Your task to perform on an android device: uninstall "Google Play Music" Image 0: 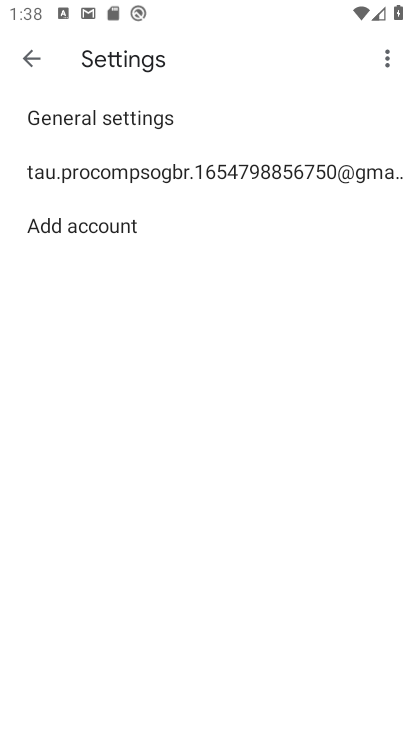
Step 0: press home button
Your task to perform on an android device: uninstall "Google Play Music" Image 1: 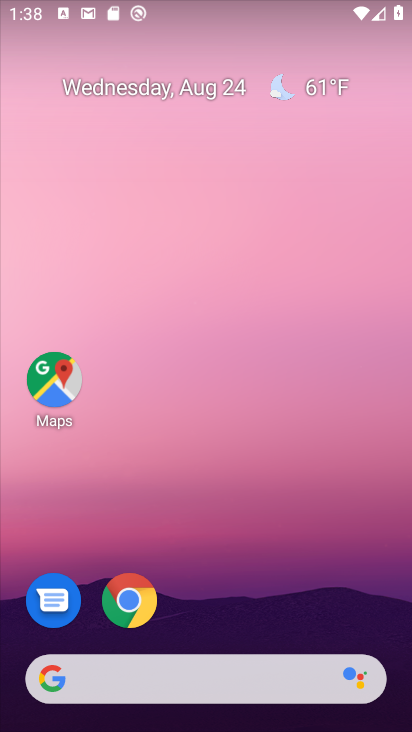
Step 1: drag from (255, 620) to (232, 0)
Your task to perform on an android device: uninstall "Google Play Music" Image 2: 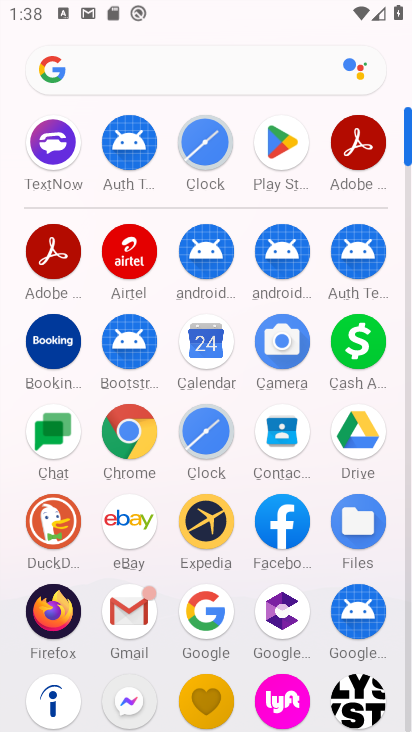
Step 2: click (280, 140)
Your task to perform on an android device: uninstall "Google Play Music" Image 3: 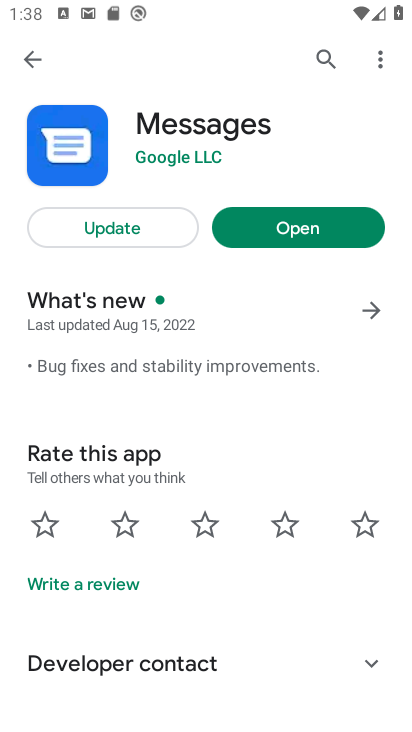
Step 3: click (338, 80)
Your task to perform on an android device: uninstall "Google Play Music" Image 4: 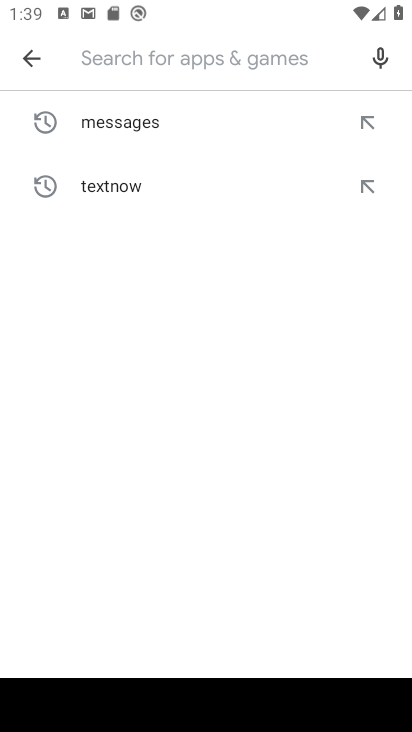
Step 4: type "google play"
Your task to perform on an android device: uninstall "Google Play Music" Image 5: 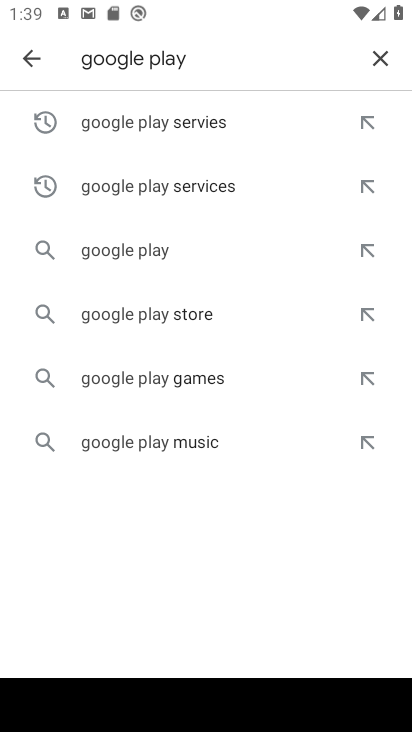
Step 5: click (165, 107)
Your task to perform on an android device: uninstall "Google Play Music" Image 6: 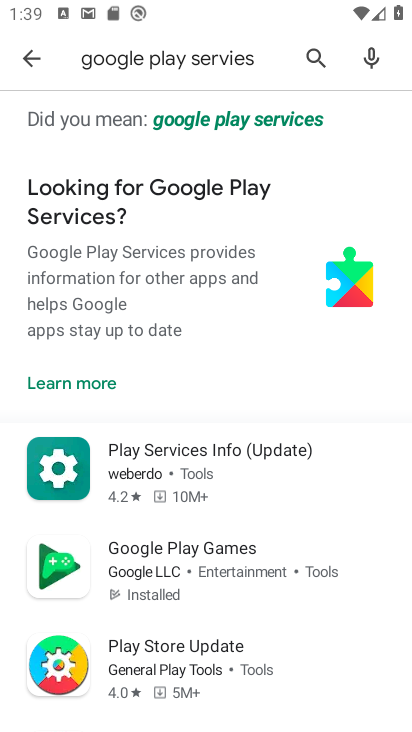
Step 6: task complete